Your task to perform on an android device: turn on priority inbox in the gmail app Image 0: 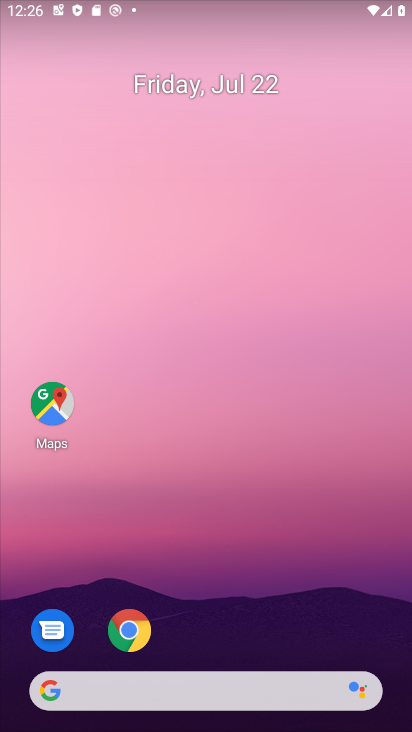
Step 0: drag from (334, 569) to (233, 7)
Your task to perform on an android device: turn on priority inbox in the gmail app Image 1: 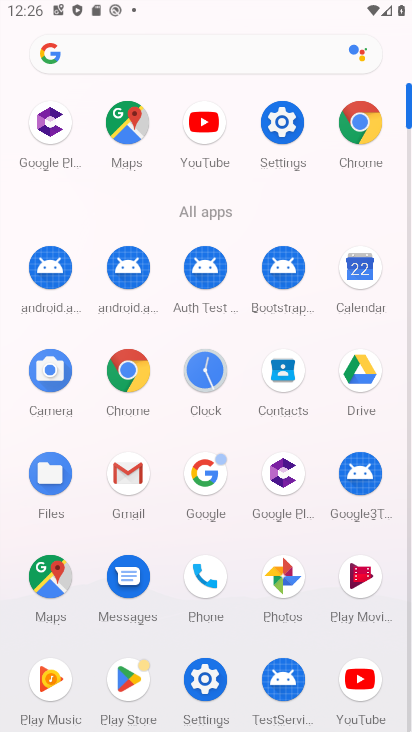
Step 1: click (111, 500)
Your task to perform on an android device: turn on priority inbox in the gmail app Image 2: 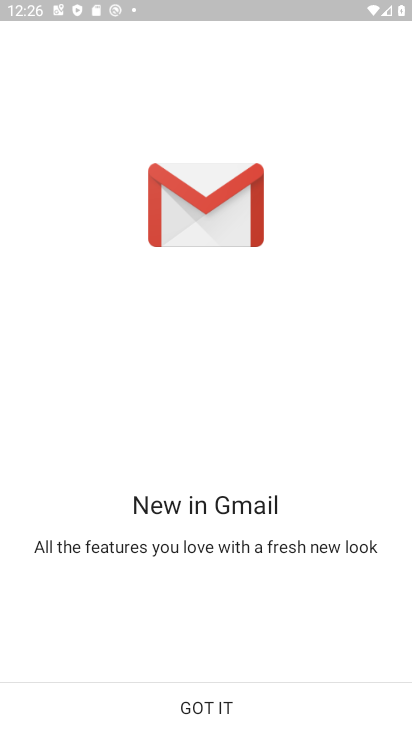
Step 2: click (337, 703)
Your task to perform on an android device: turn on priority inbox in the gmail app Image 3: 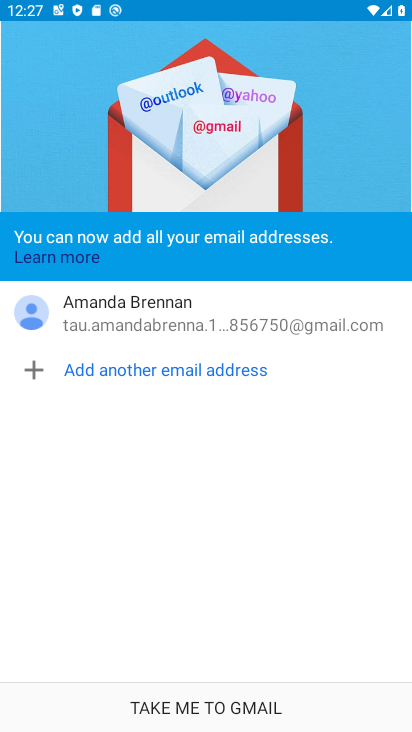
Step 3: click (64, 721)
Your task to perform on an android device: turn on priority inbox in the gmail app Image 4: 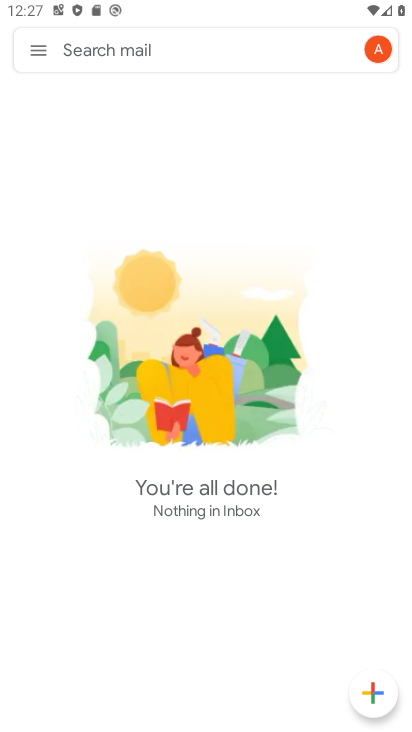
Step 4: click (37, 56)
Your task to perform on an android device: turn on priority inbox in the gmail app Image 5: 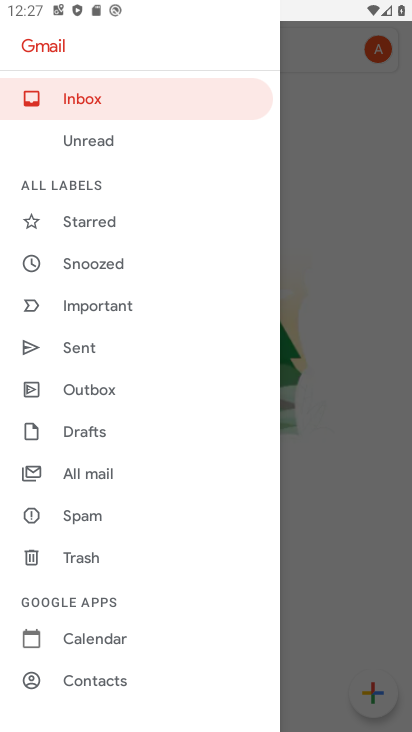
Step 5: click (200, 172)
Your task to perform on an android device: turn on priority inbox in the gmail app Image 6: 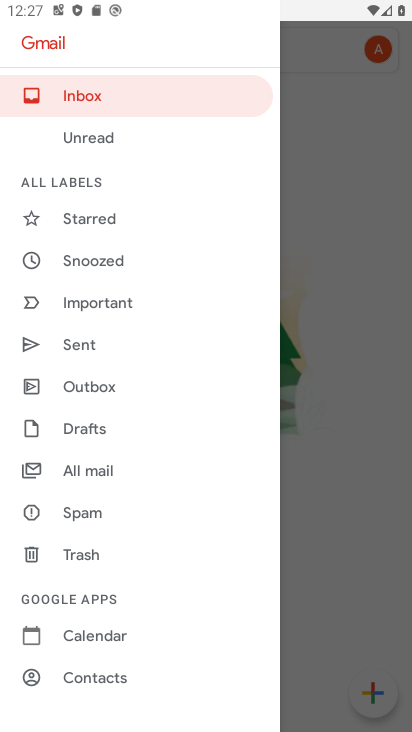
Step 6: drag from (37, 644) to (50, 248)
Your task to perform on an android device: turn on priority inbox in the gmail app Image 7: 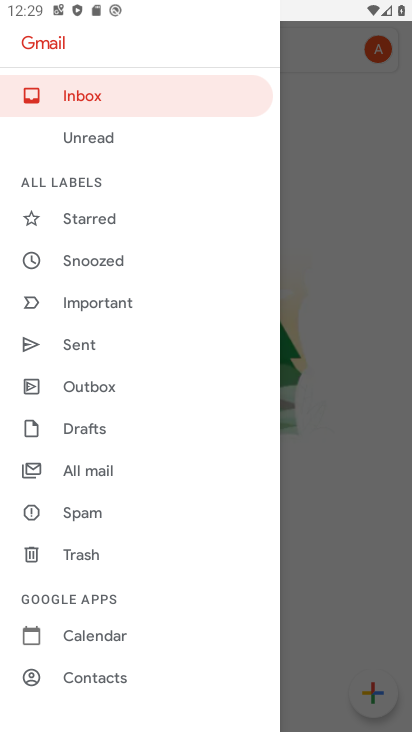
Step 7: drag from (76, 674) to (78, 288)
Your task to perform on an android device: turn on priority inbox in the gmail app Image 8: 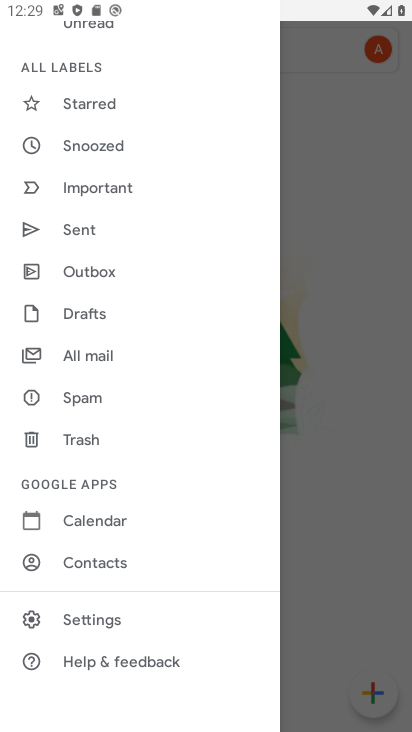
Step 8: click (46, 622)
Your task to perform on an android device: turn on priority inbox in the gmail app Image 9: 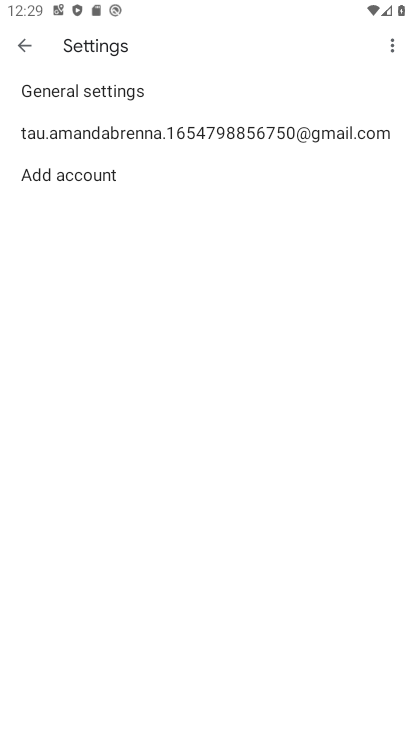
Step 9: click (110, 138)
Your task to perform on an android device: turn on priority inbox in the gmail app Image 10: 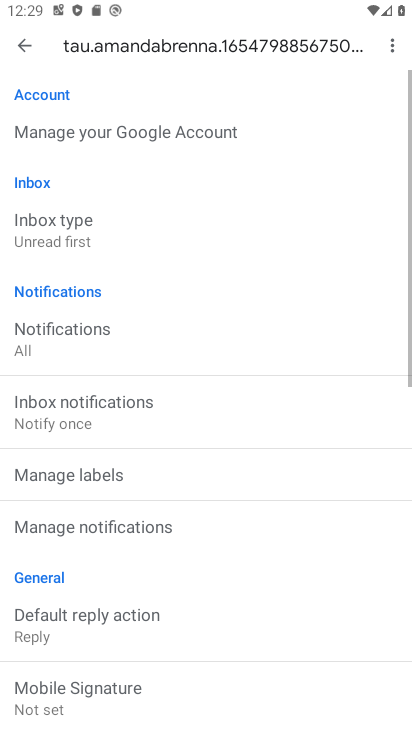
Step 10: click (100, 223)
Your task to perform on an android device: turn on priority inbox in the gmail app Image 11: 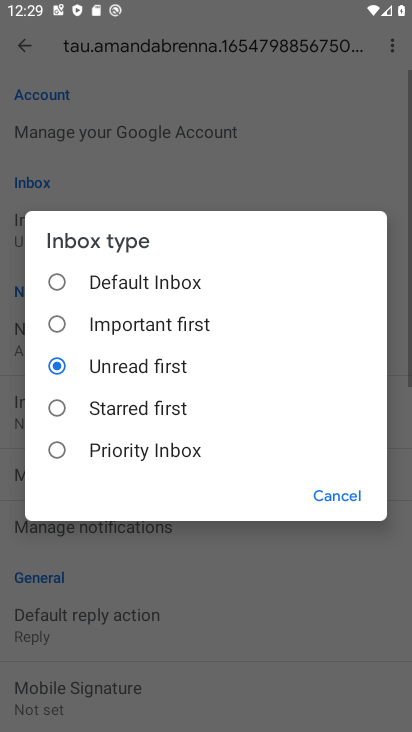
Step 11: click (60, 454)
Your task to perform on an android device: turn on priority inbox in the gmail app Image 12: 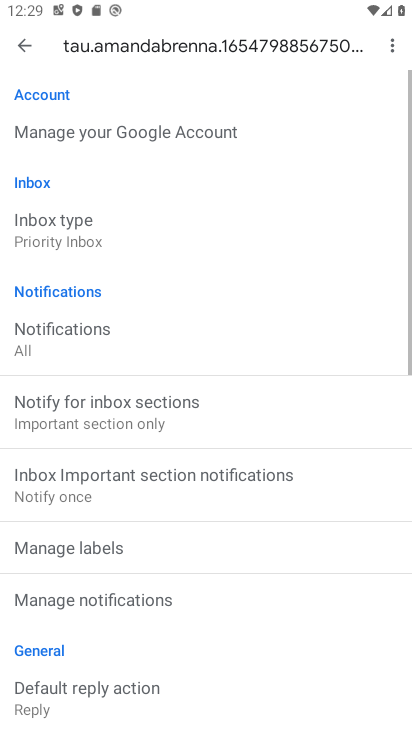
Step 12: task complete